Your task to perform on an android device: change text size in settings app Image 0: 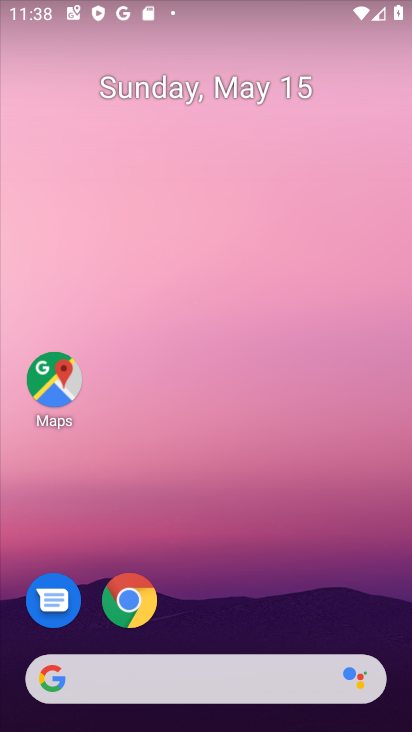
Step 0: click (406, 607)
Your task to perform on an android device: change text size in settings app Image 1: 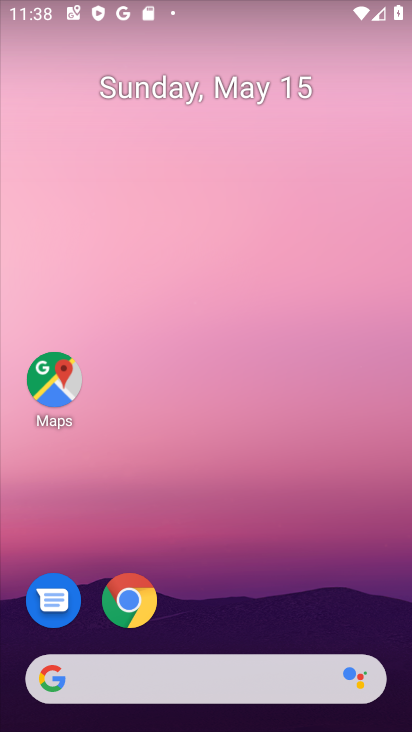
Step 1: drag from (217, 668) to (207, 201)
Your task to perform on an android device: change text size in settings app Image 2: 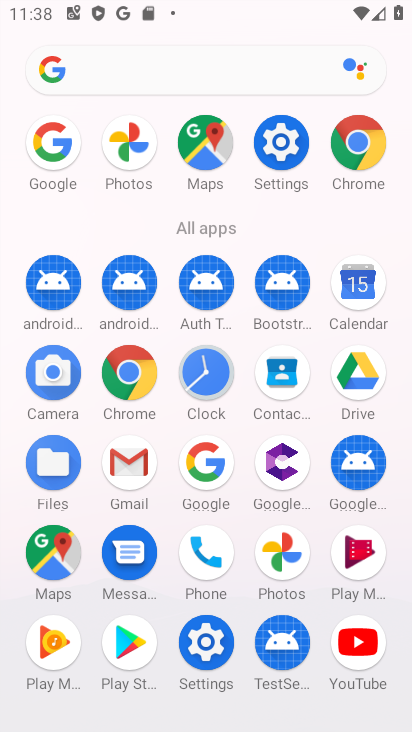
Step 2: click (269, 146)
Your task to perform on an android device: change text size in settings app Image 3: 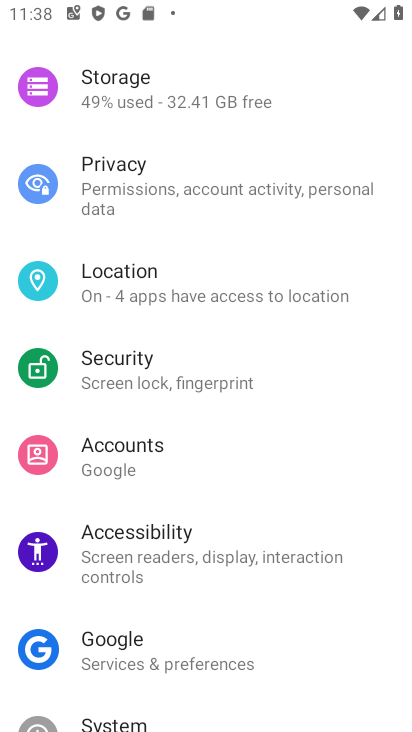
Step 3: drag from (216, 635) to (222, 92)
Your task to perform on an android device: change text size in settings app Image 4: 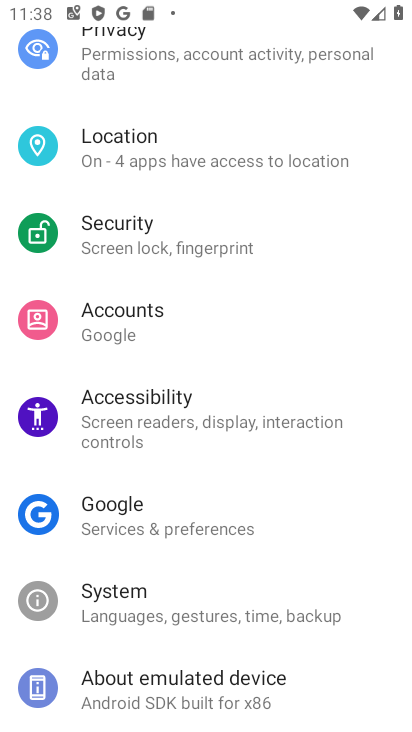
Step 4: drag from (184, 113) to (197, 659)
Your task to perform on an android device: change text size in settings app Image 5: 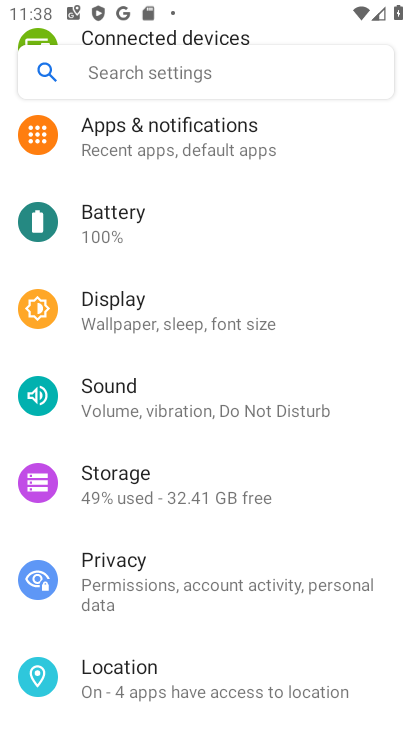
Step 5: click (116, 299)
Your task to perform on an android device: change text size in settings app Image 6: 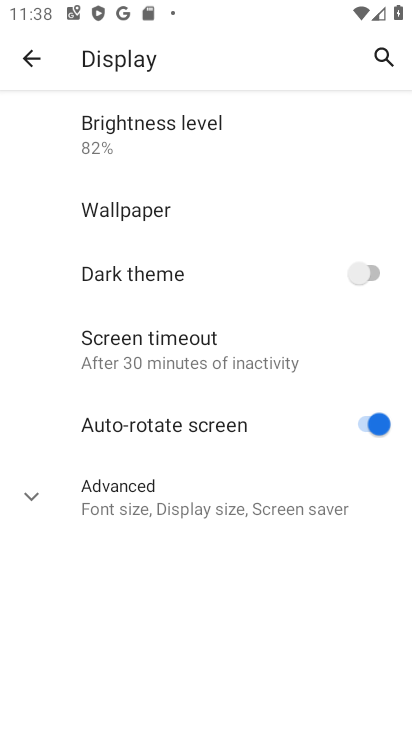
Step 6: click (142, 484)
Your task to perform on an android device: change text size in settings app Image 7: 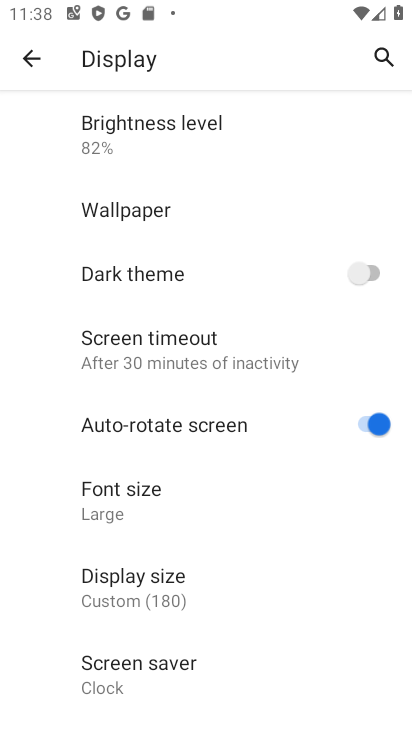
Step 7: click (135, 510)
Your task to perform on an android device: change text size in settings app Image 8: 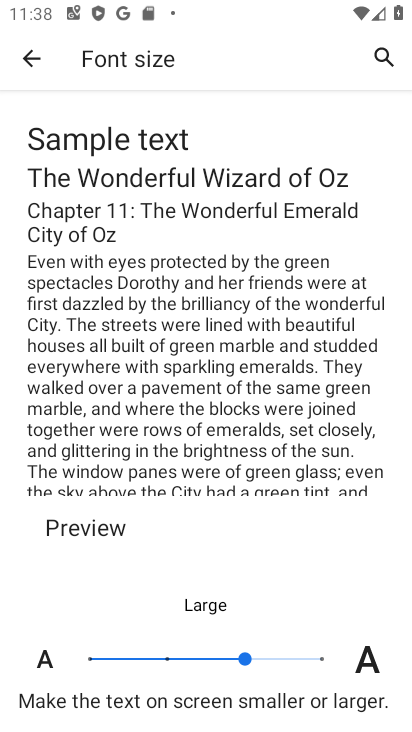
Step 8: click (172, 662)
Your task to perform on an android device: change text size in settings app Image 9: 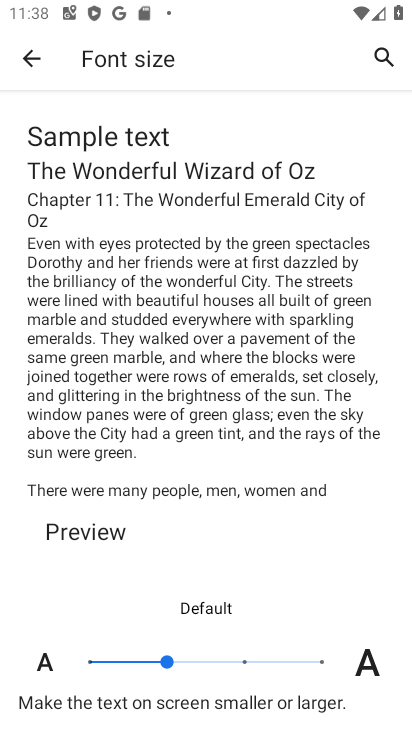
Step 9: task complete